Your task to perform on an android device: Open Google Maps Image 0: 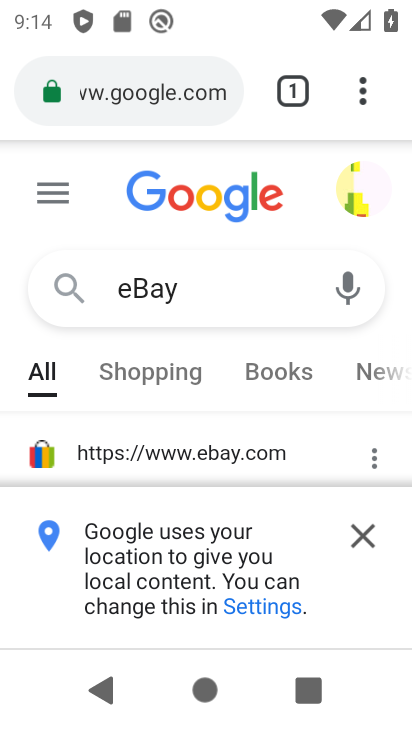
Step 0: press home button
Your task to perform on an android device: Open Google Maps Image 1: 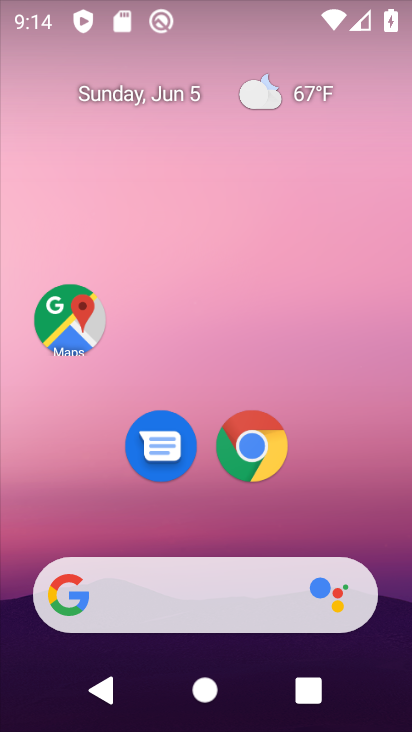
Step 1: click (81, 322)
Your task to perform on an android device: Open Google Maps Image 2: 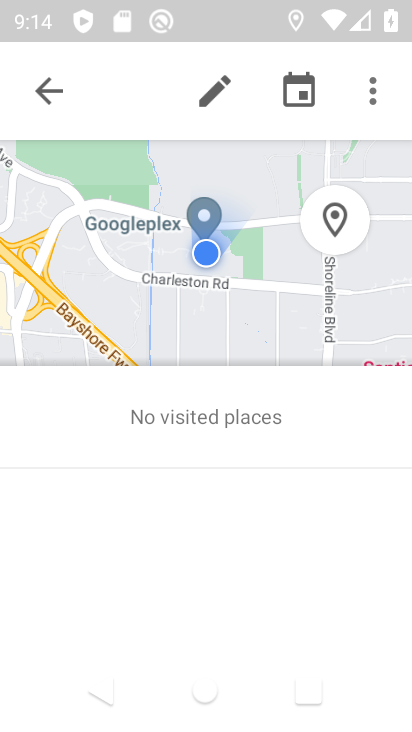
Step 2: task complete